Your task to perform on an android device: Open Chrome and go to the settings page Image 0: 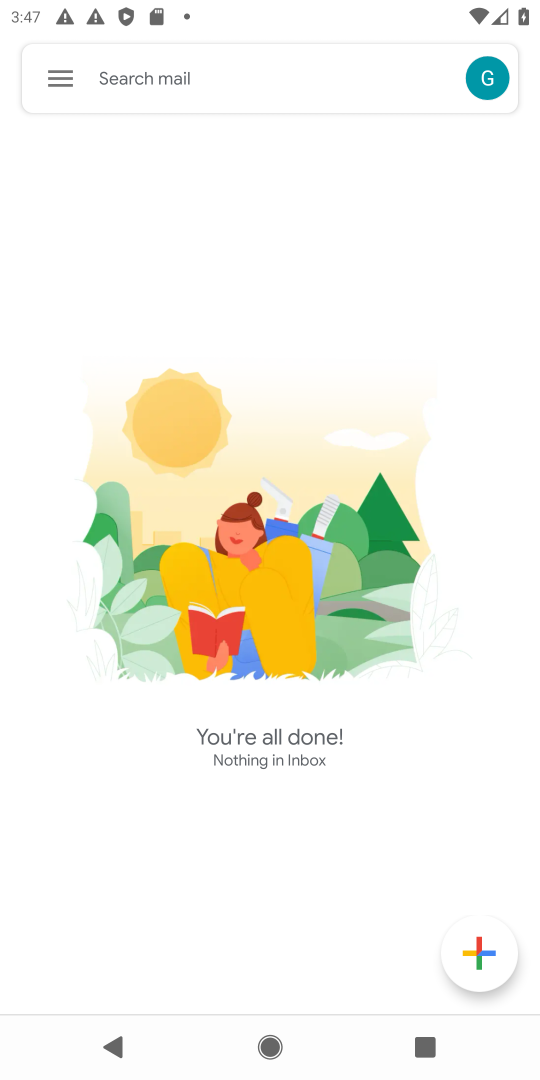
Step 0: press home button
Your task to perform on an android device: Open Chrome and go to the settings page Image 1: 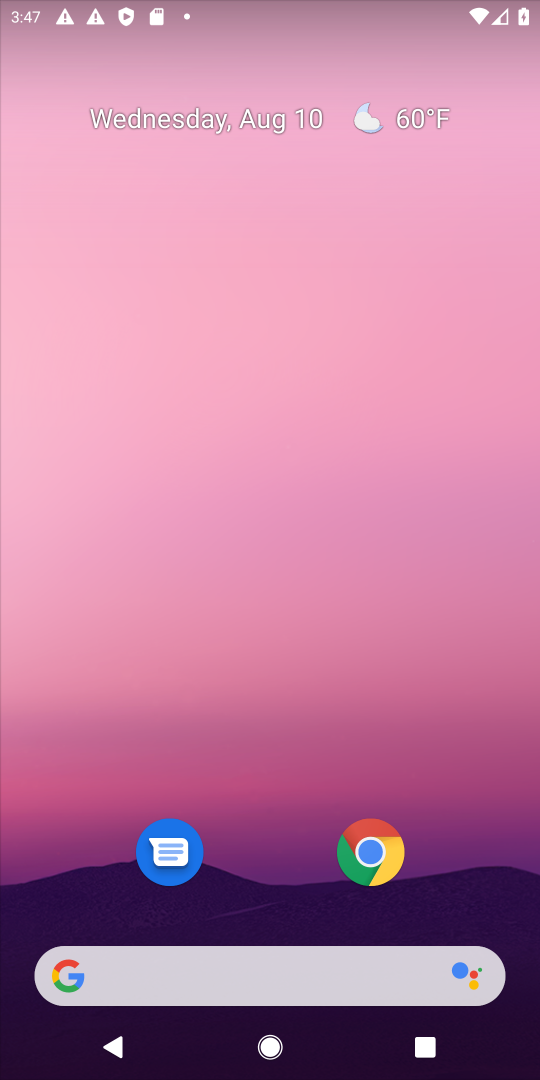
Step 1: drag from (265, 865) to (414, 110)
Your task to perform on an android device: Open Chrome and go to the settings page Image 2: 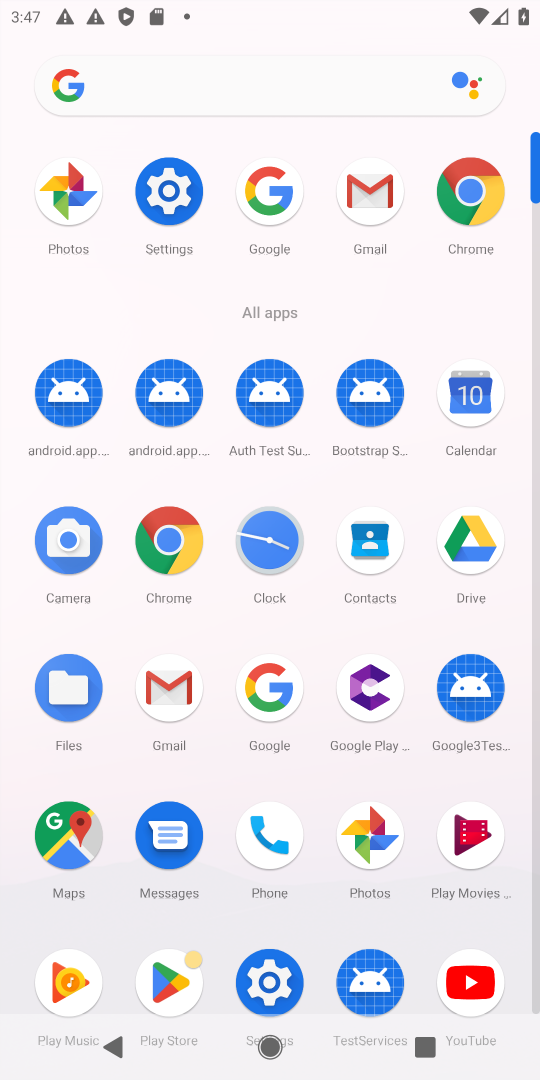
Step 2: click (176, 543)
Your task to perform on an android device: Open Chrome and go to the settings page Image 3: 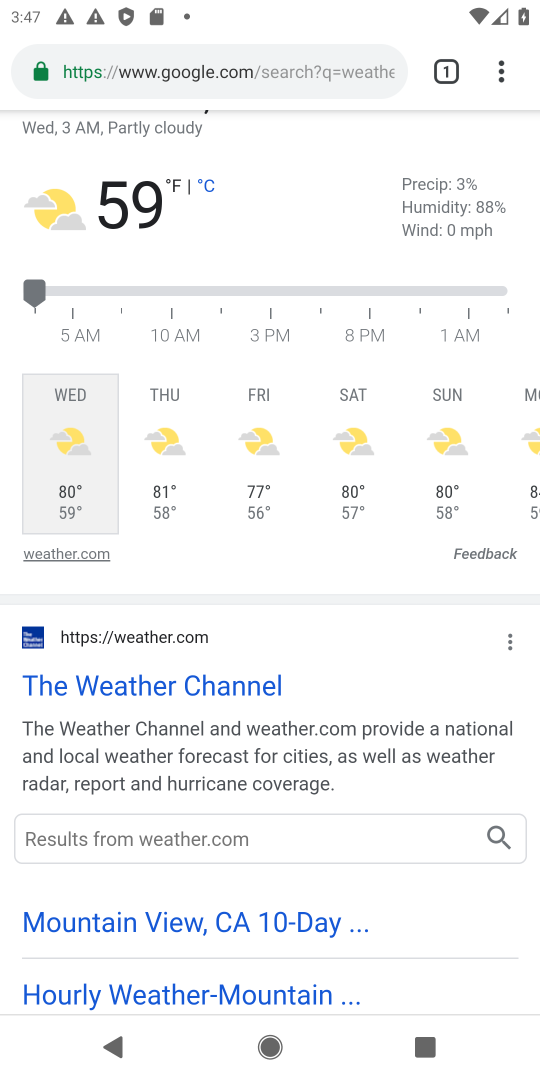
Step 3: click (495, 65)
Your task to perform on an android device: Open Chrome and go to the settings page Image 4: 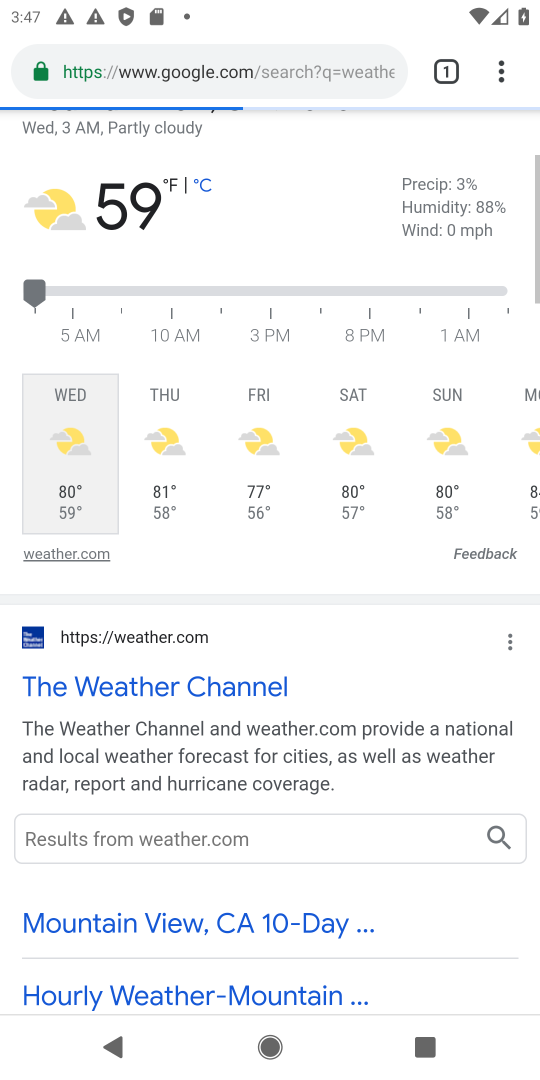
Step 4: task complete